Your task to perform on an android device: Show me popular videos on Youtube Image 0: 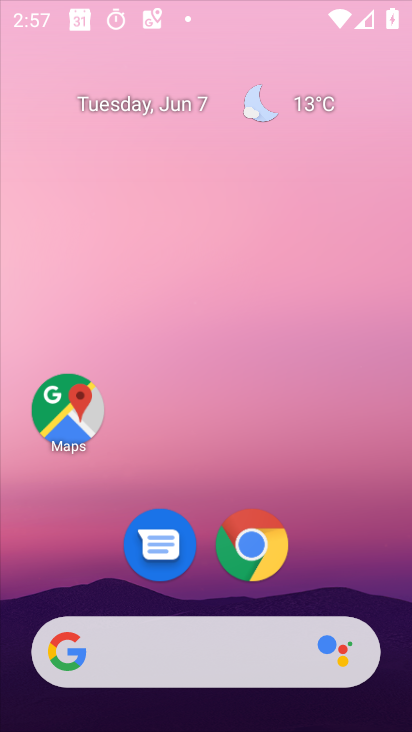
Step 0: press home button
Your task to perform on an android device: Show me popular videos on Youtube Image 1: 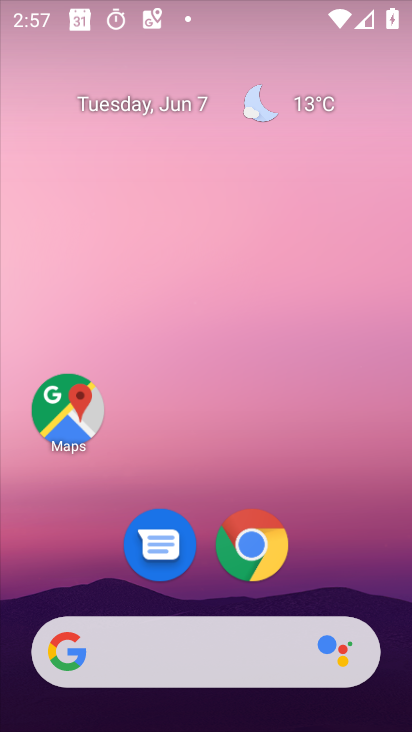
Step 1: drag from (389, 475) to (191, 50)
Your task to perform on an android device: Show me popular videos on Youtube Image 2: 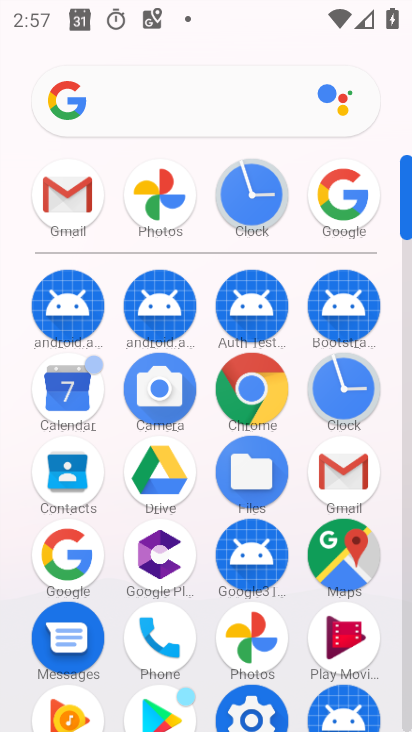
Step 2: drag from (199, 697) to (278, 101)
Your task to perform on an android device: Show me popular videos on Youtube Image 3: 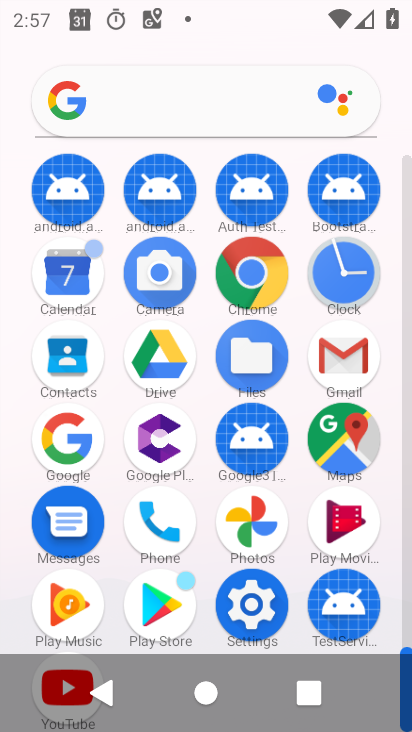
Step 3: drag from (148, 547) to (188, 206)
Your task to perform on an android device: Show me popular videos on Youtube Image 4: 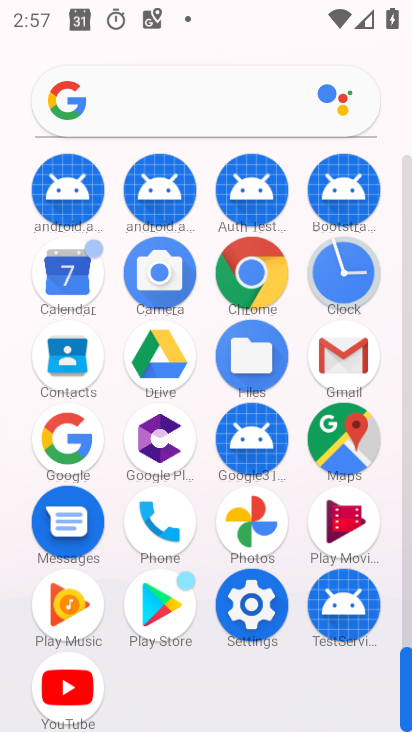
Step 4: click (75, 693)
Your task to perform on an android device: Show me popular videos on Youtube Image 5: 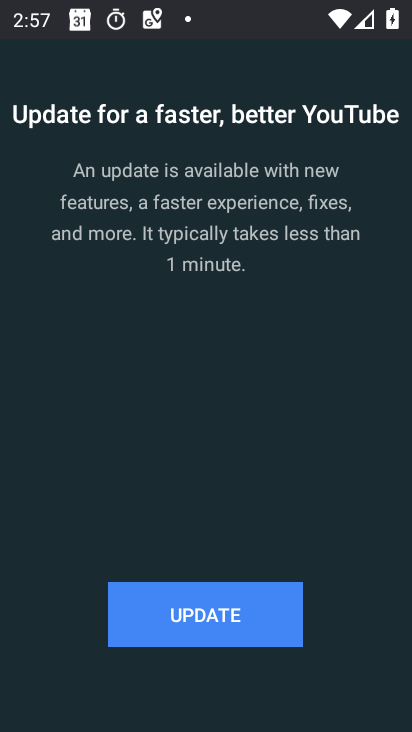
Step 5: click (270, 633)
Your task to perform on an android device: Show me popular videos on Youtube Image 6: 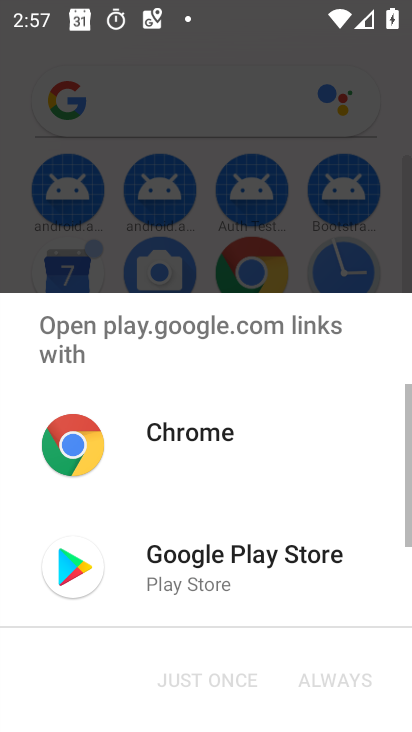
Step 6: click (181, 568)
Your task to perform on an android device: Show me popular videos on Youtube Image 7: 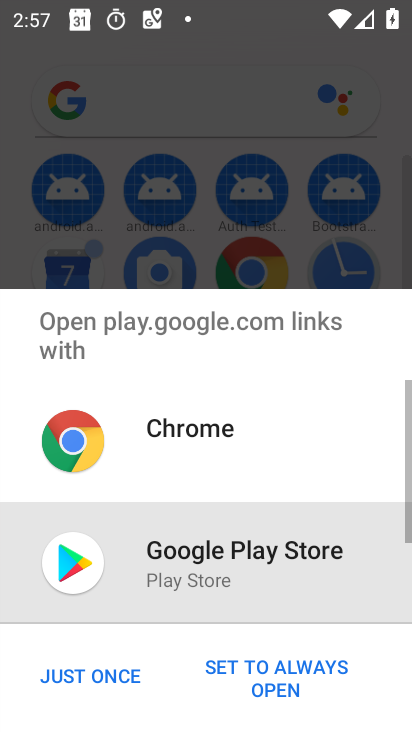
Step 7: click (63, 678)
Your task to perform on an android device: Show me popular videos on Youtube Image 8: 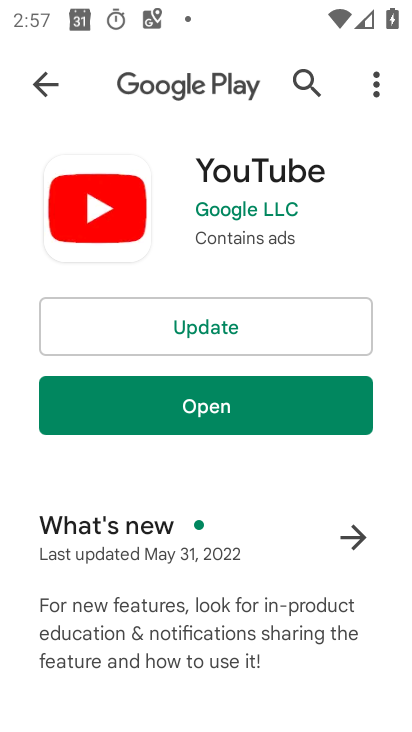
Step 8: click (227, 334)
Your task to perform on an android device: Show me popular videos on Youtube Image 9: 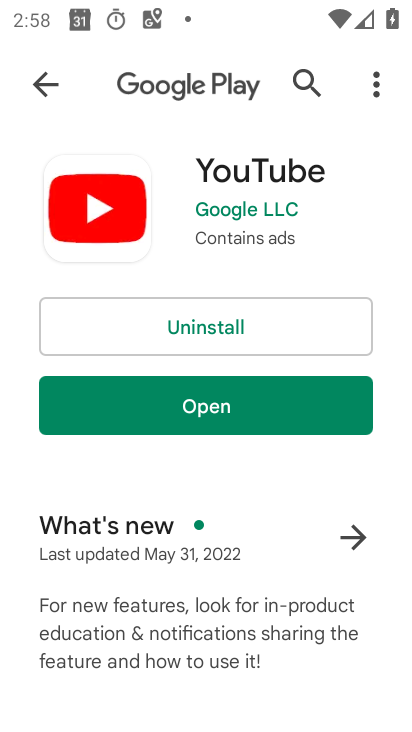
Step 9: click (260, 401)
Your task to perform on an android device: Show me popular videos on Youtube Image 10: 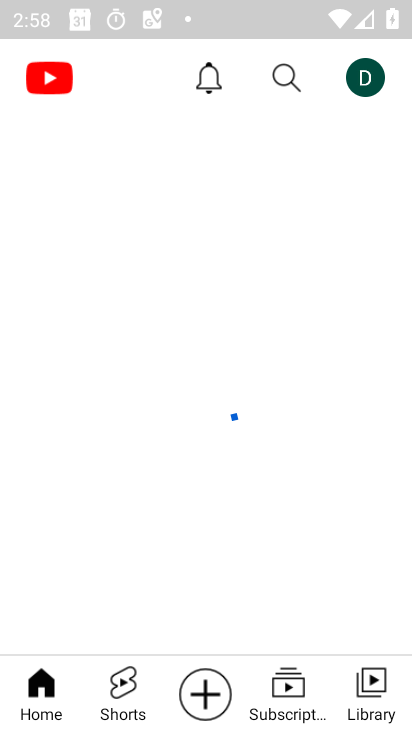
Step 10: click (36, 691)
Your task to perform on an android device: Show me popular videos on Youtube Image 11: 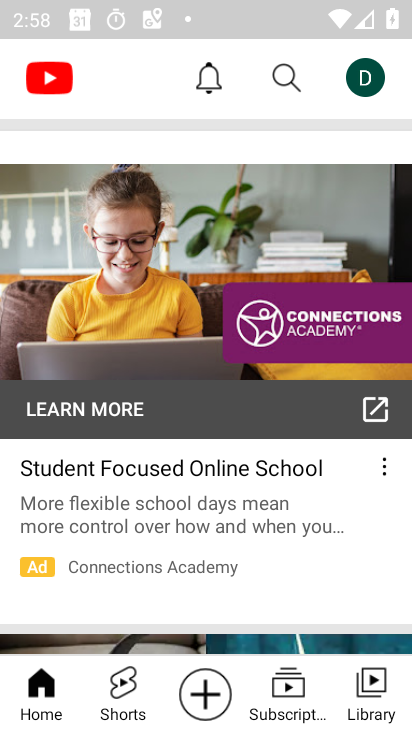
Step 11: click (117, 161)
Your task to perform on an android device: Show me popular videos on Youtube Image 12: 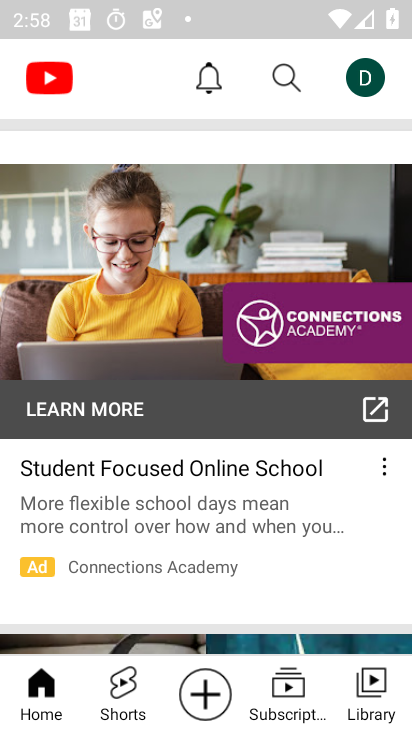
Step 12: drag from (154, 320) to (207, 639)
Your task to perform on an android device: Show me popular videos on Youtube Image 13: 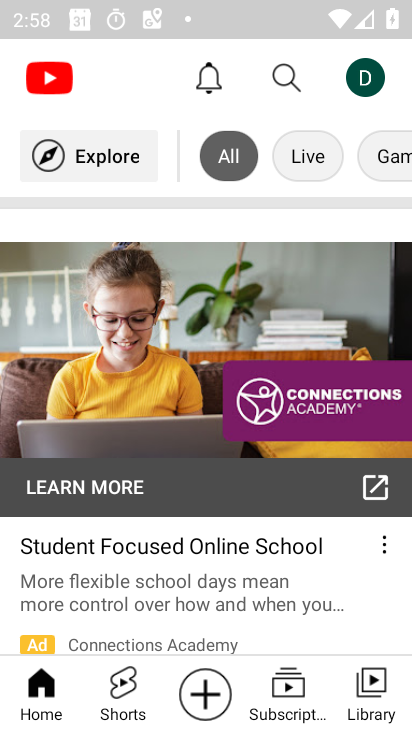
Step 13: click (117, 155)
Your task to perform on an android device: Show me popular videos on Youtube Image 14: 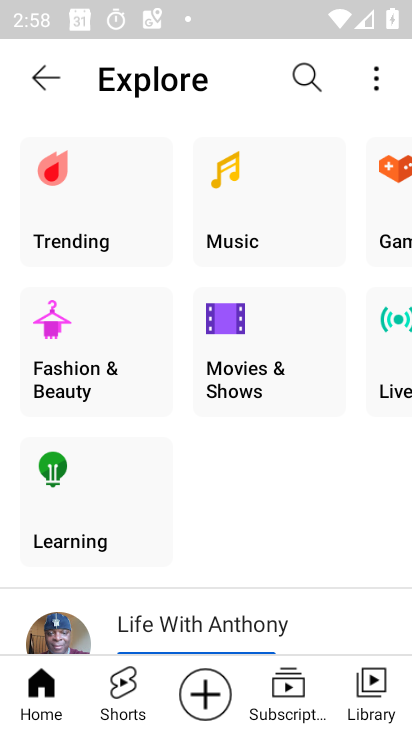
Step 14: click (88, 232)
Your task to perform on an android device: Show me popular videos on Youtube Image 15: 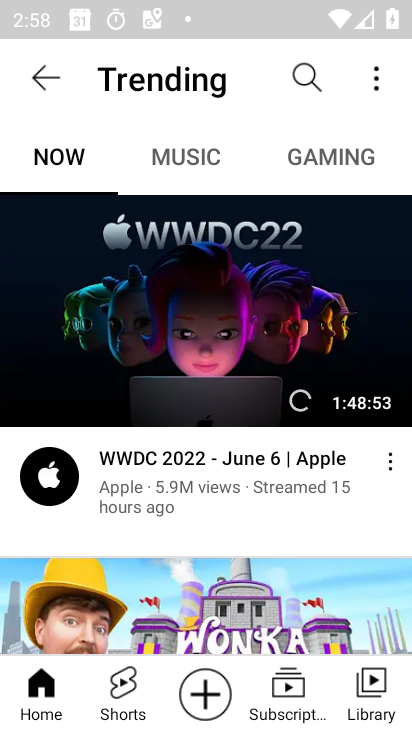
Step 15: task complete